Your task to perform on an android device: Go to eBay Image 0: 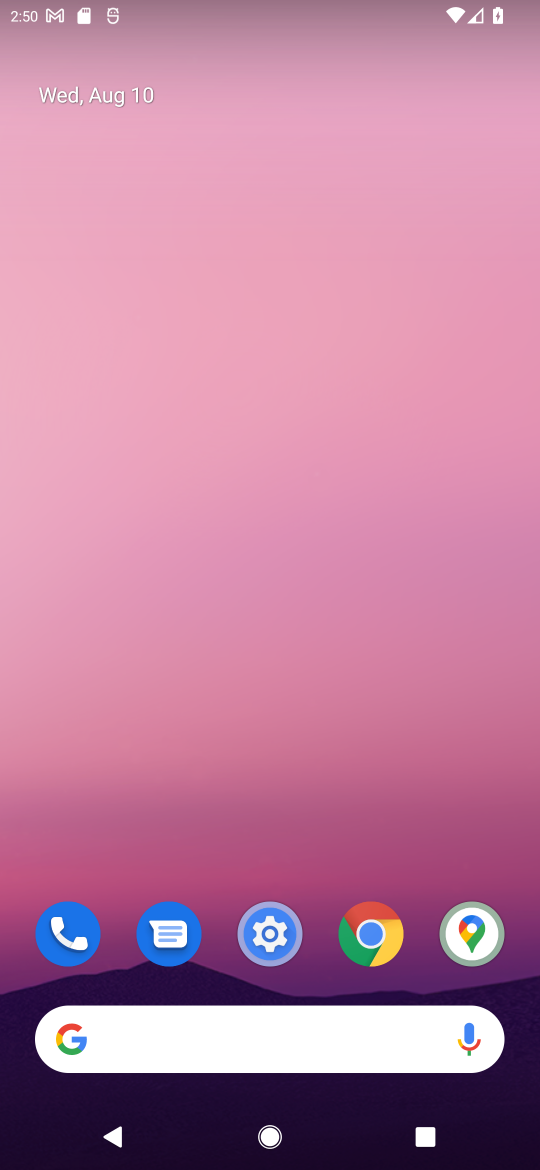
Step 0: click (169, 1038)
Your task to perform on an android device: Go to eBay Image 1: 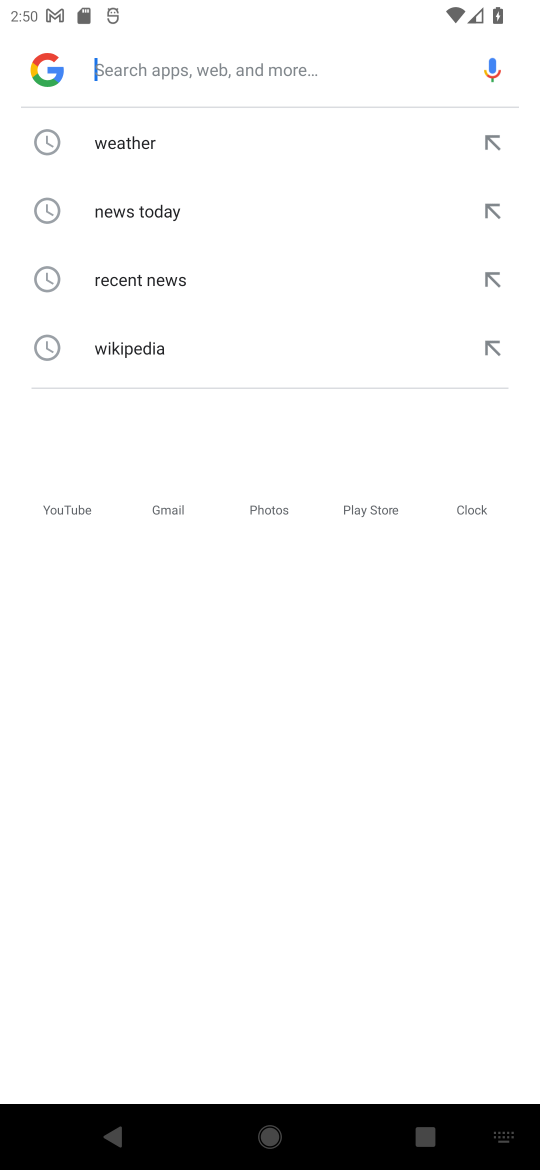
Step 1: type "eBay"
Your task to perform on an android device: Go to eBay Image 2: 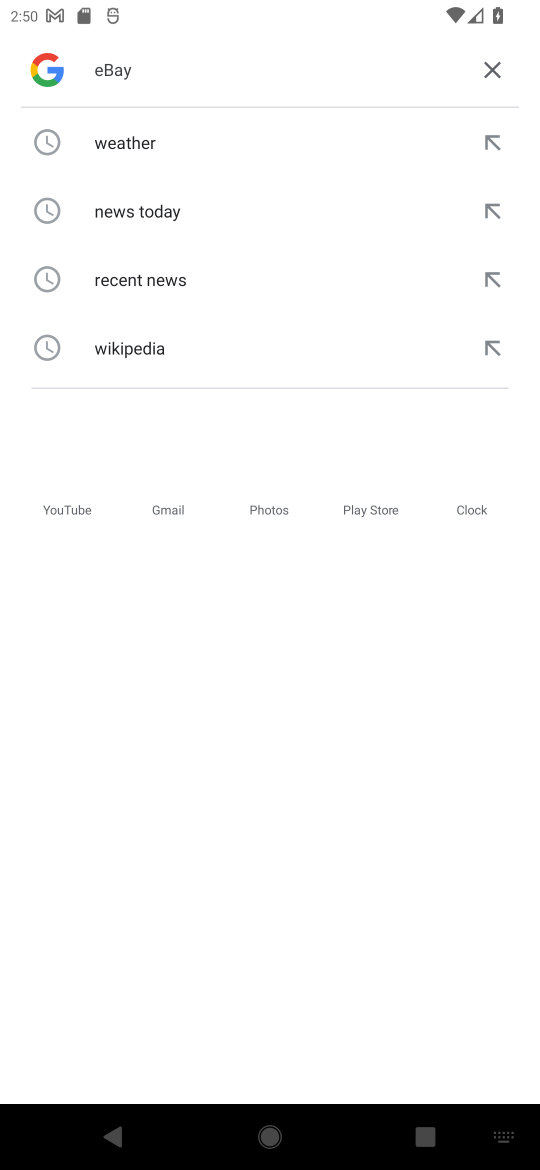
Step 2: type ""
Your task to perform on an android device: Go to eBay Image 3: 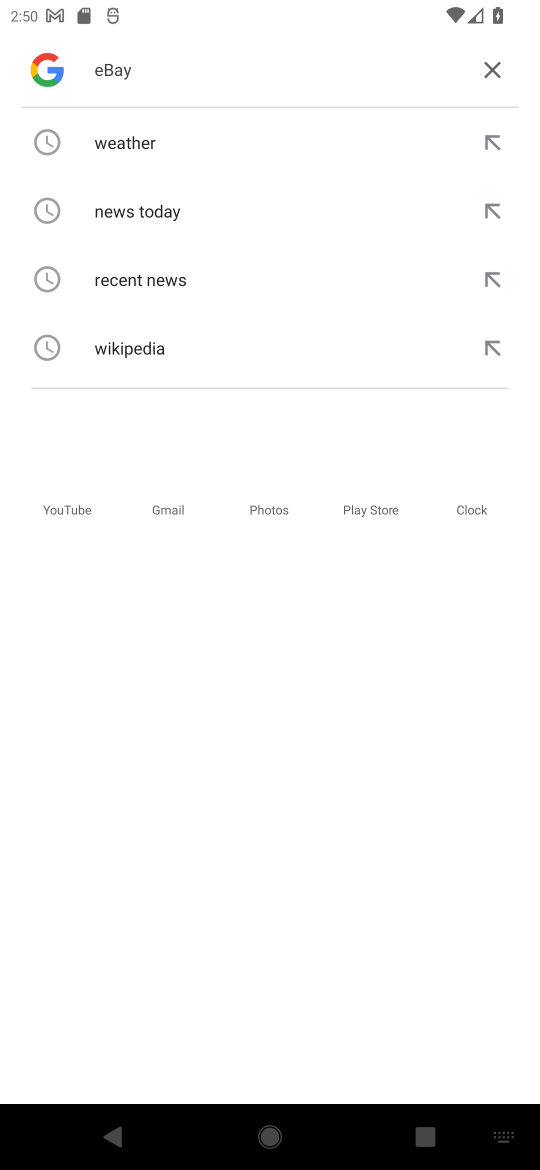
Step 3: type ""
Your task to perform on an android device: Go to eBay Image 4: 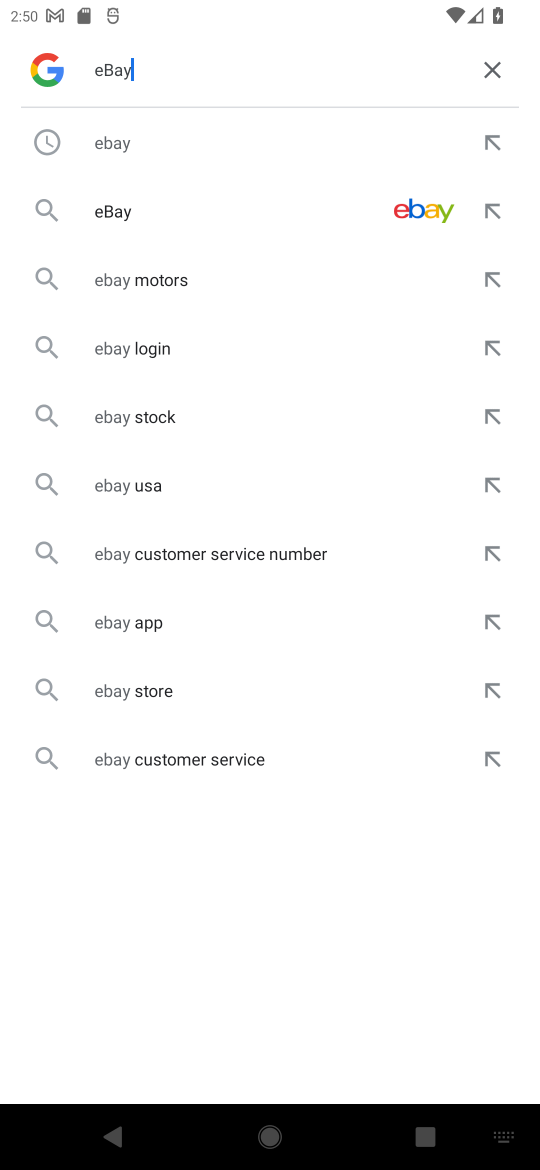
Step 4: click (119, 200)
Your task to perform on an android device: Go to eBay Image 5: 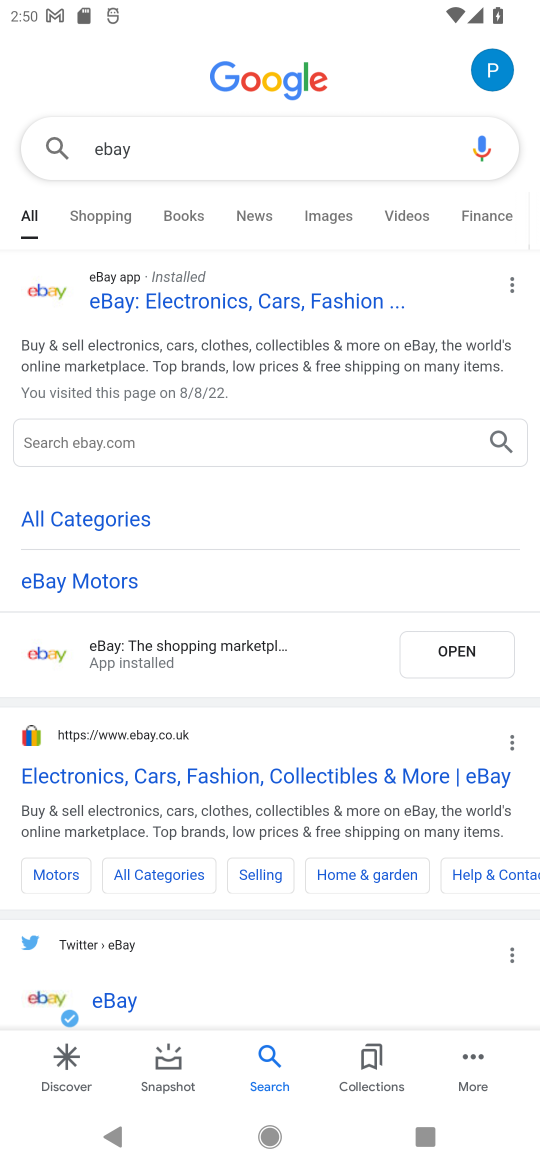
Step 5: task complete